Your task to perform on an android device: toggle priority inbox in the gmail app Image 0: 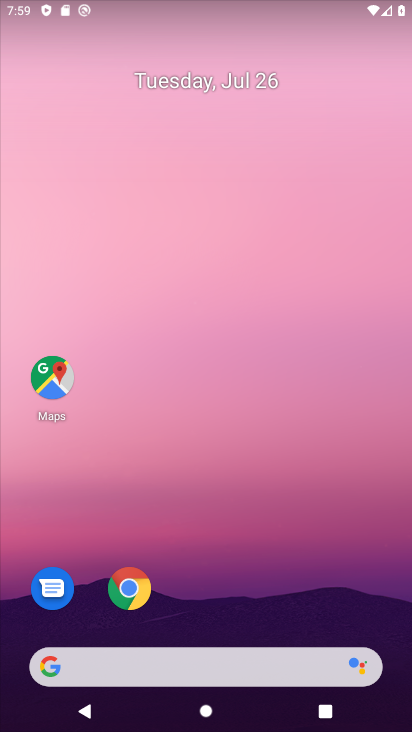
Step 0: drag from (273, 587) to (242, 110)
Your task to perform on an android device: toggle priority inbox in the gmail app Image 1: 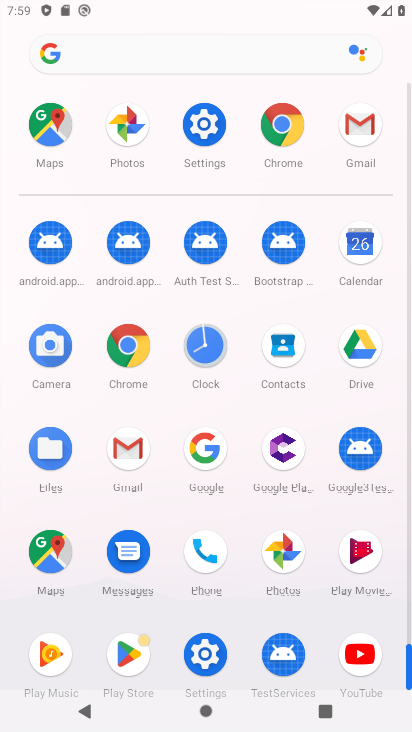
Step 1: click (376, 121)
Your task to perform on an android device: toggle priority inbox in the gmail app Image 2: 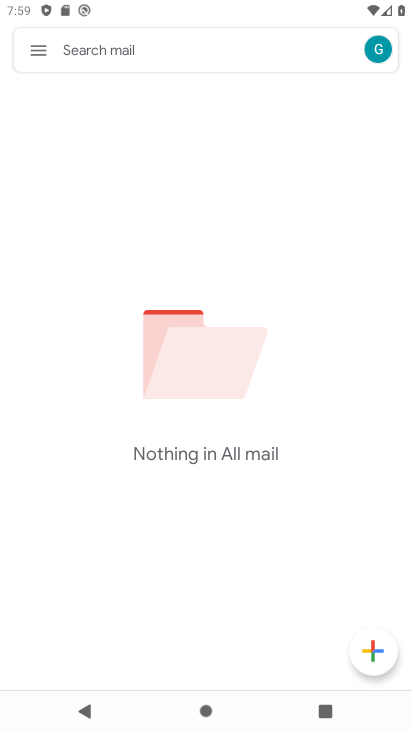
Step 2: click (40, 51)
Your task to perform on an android device: toggle priority inbox in the gmail app Image 3: 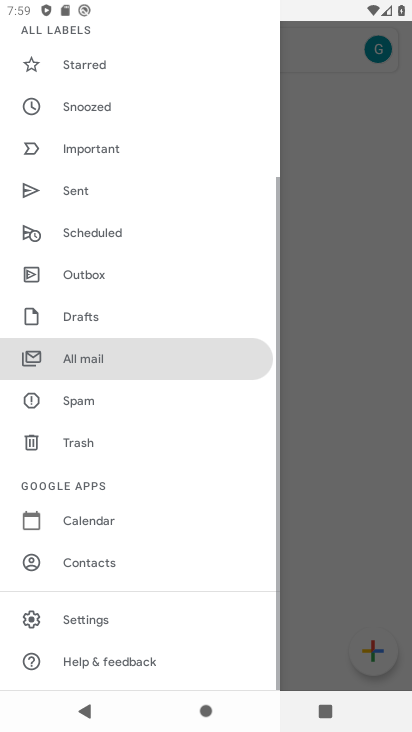
Step 3: click (103, 624)
Your task to perform on an android device: toggle priority inbox in the gmail app Image 4: 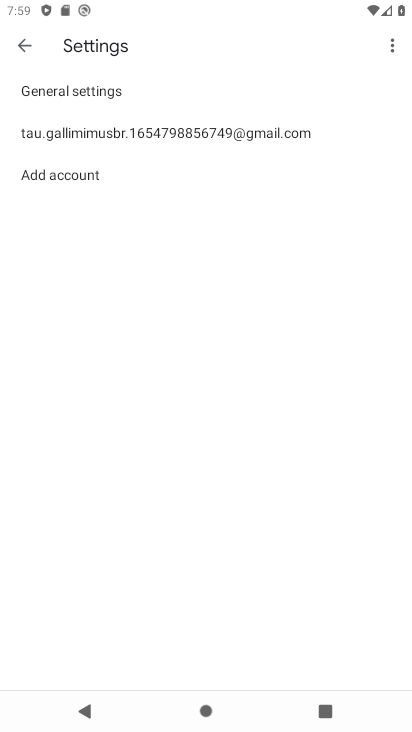
Step 4: click (196, 117)
Your task to perform on an android device: toggle priority inbox in the gmail app Image 5: 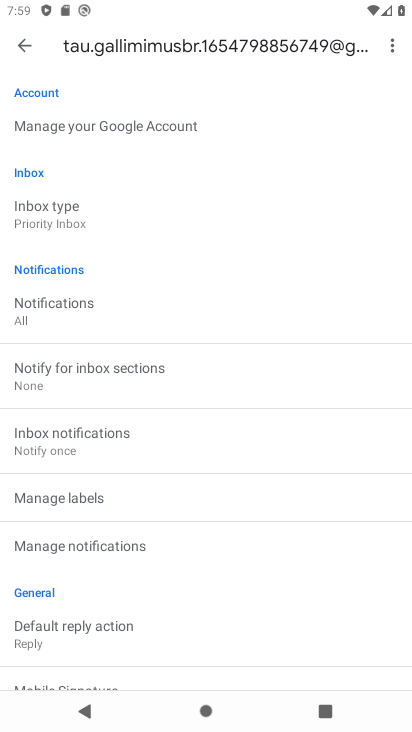
Step 5: click (76, 220)
Your task to perform on an android device: toggle priority inbox in the gmail app Image 6: 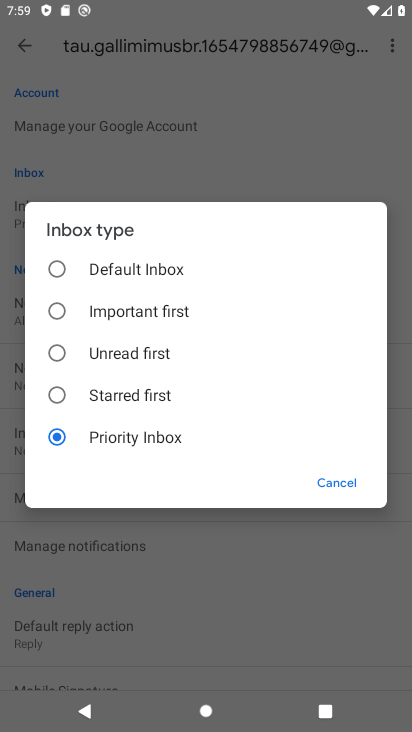
Step 6: click (139, 281)
Your task to perform on an android device: toggle priority inbox in the gmail app Image 7: 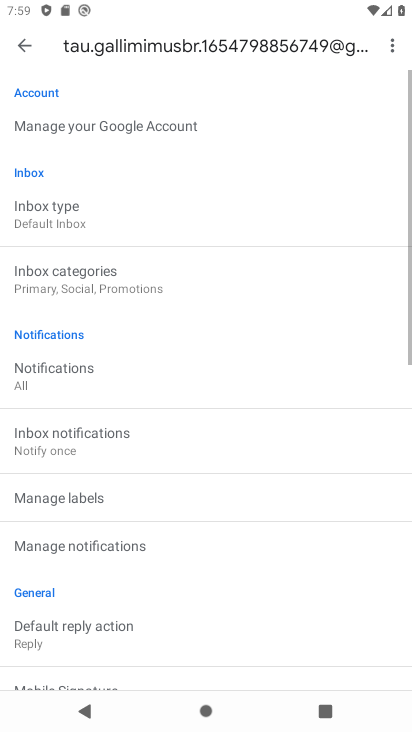
Step 7: task complete